Your task to perform on an android device: Search for "bose soundsport free" on target, select the first entry, add it to the cart, then select checkout. Image 0: 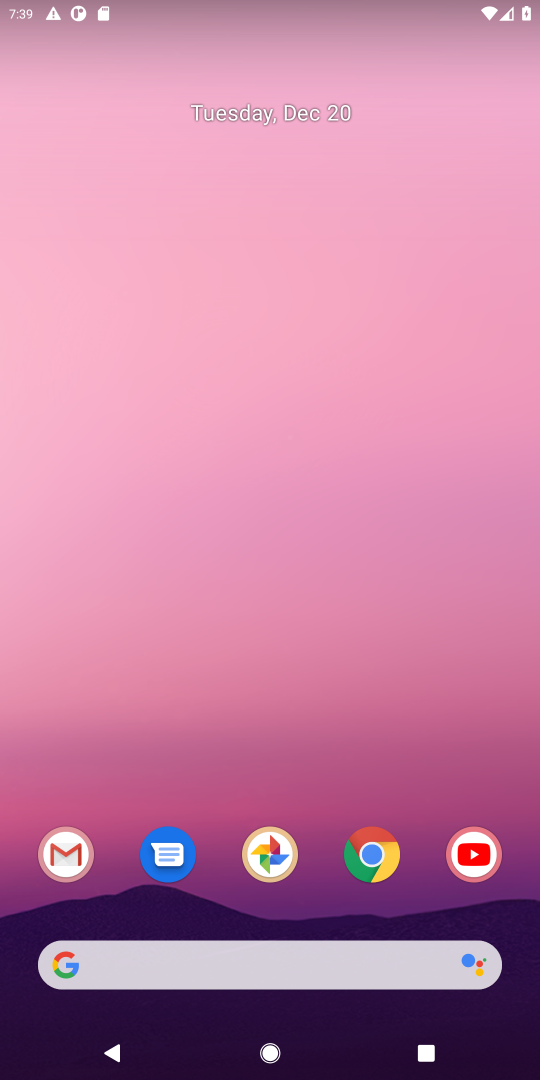
Step 0: click (364, 872)
Your task to perform on an android device: Search for "bose soundsport free" on target, select the first entry, add it to the cart, then select checkout. Image 1: 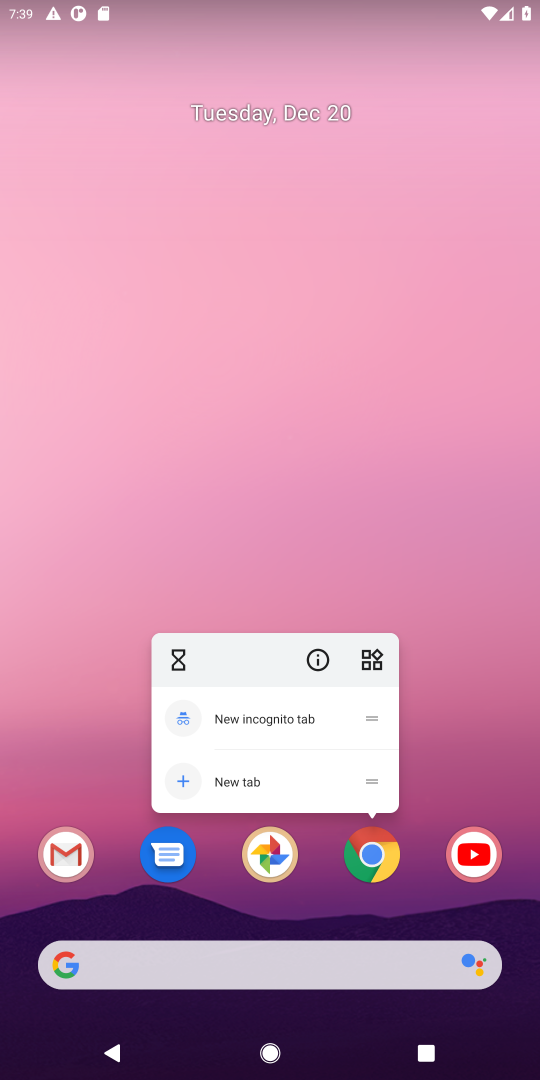
Step 1: click (366, 866)
Your task to perform on an android device: Search for "bose soundsport free" on target, select the first entry, add it to the cart, then select checkout. Image 2: 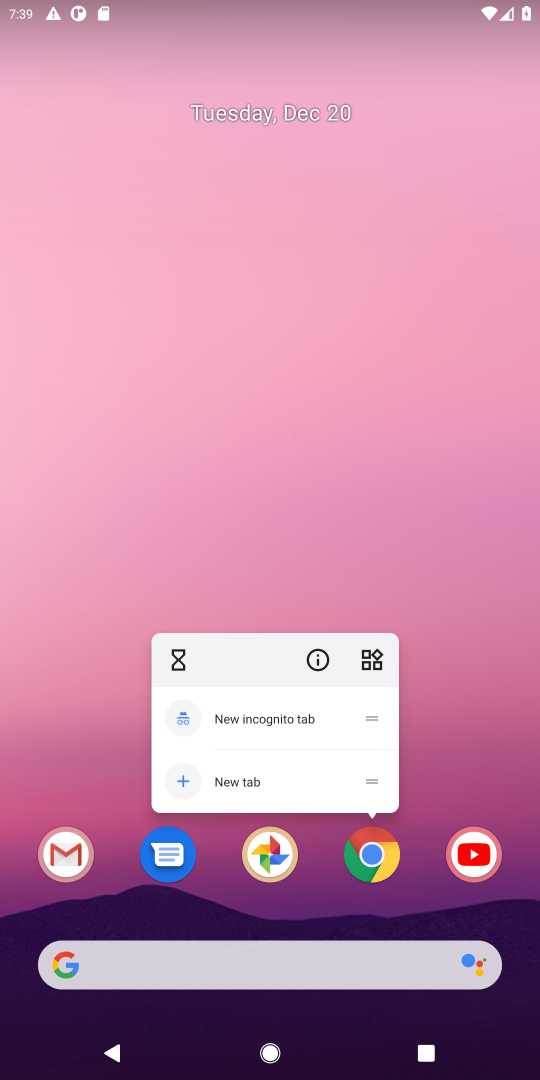
Step 2: click (378, 860)
Your task to perform on an android device: Search for "bose soundsport free" on target, select the first entry, add it to the cart, then select checkout. Image 3: 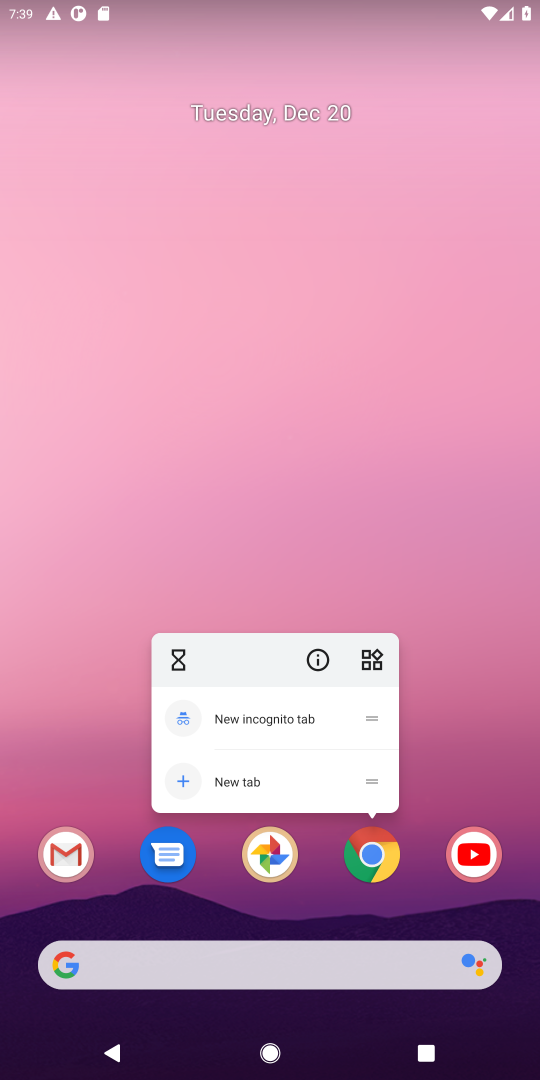
Step 3: click (374, 862)
Your task to perform on an android device: Search for "bose soundsport free" on target, select the first entry, add it to the cart, then select checkout. Image 4: 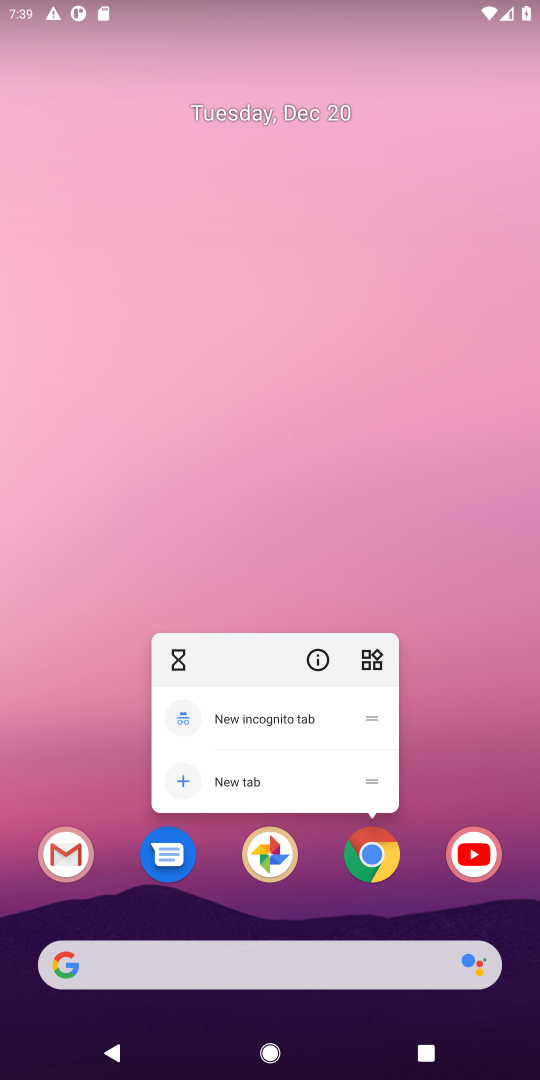
Step 4: click (450, 752)
Your task to perform on an android device: Search for "bose soundsport free" on target, select the first entry, add it to the cart, then select checkout. Image 5: 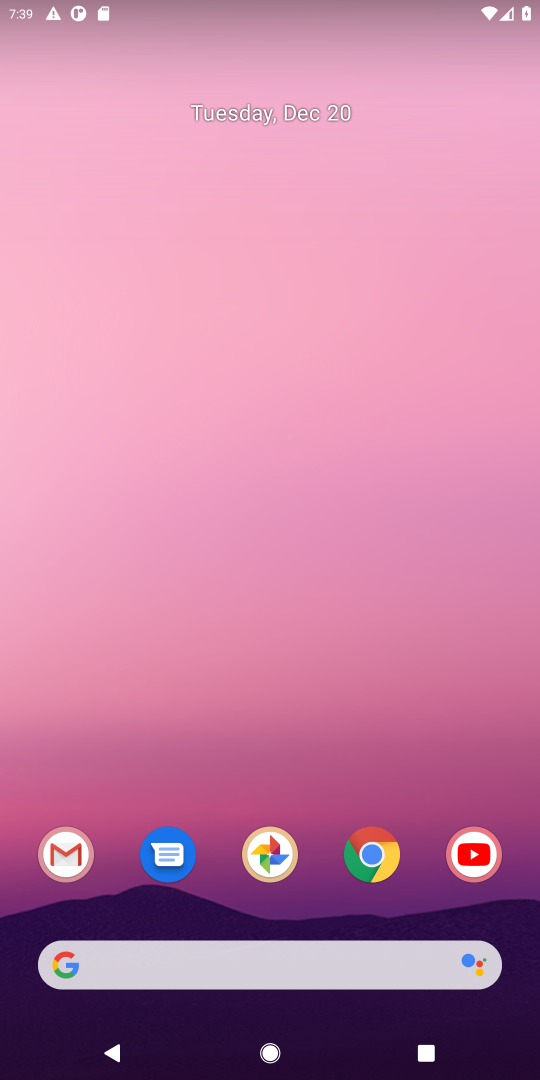
Step 5: click (376, 871)
Your task to perform on an android device: Search for "bose soundsport free" on target, select the first entry, add it to the cart, then select checkout. Image 6: 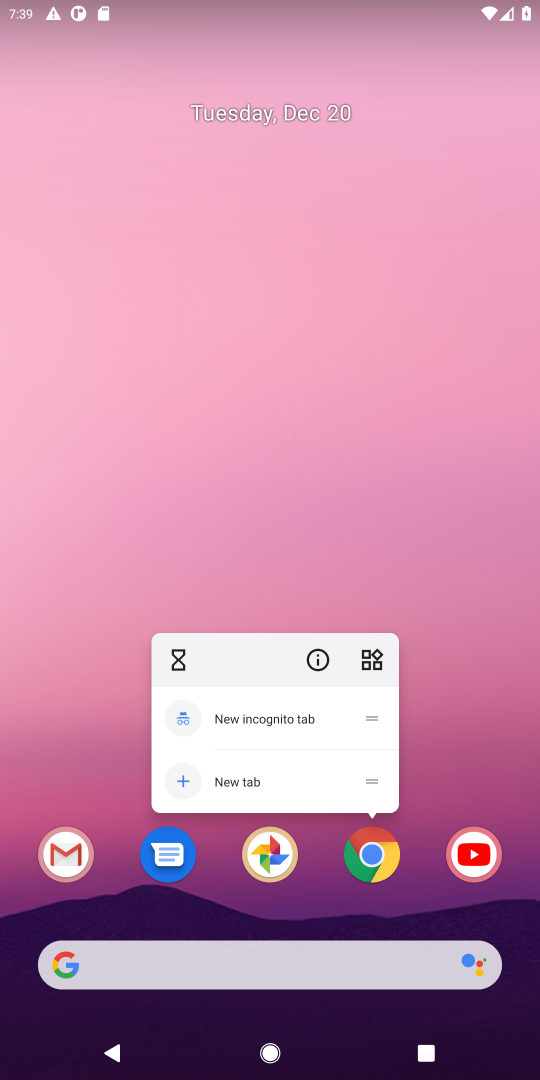
Step 6: click (364, 871)
Your task to perform on an android device: Search for "bose soundsport free" on target, select the first entry, add it to the cart, then select checkout. Image 7: 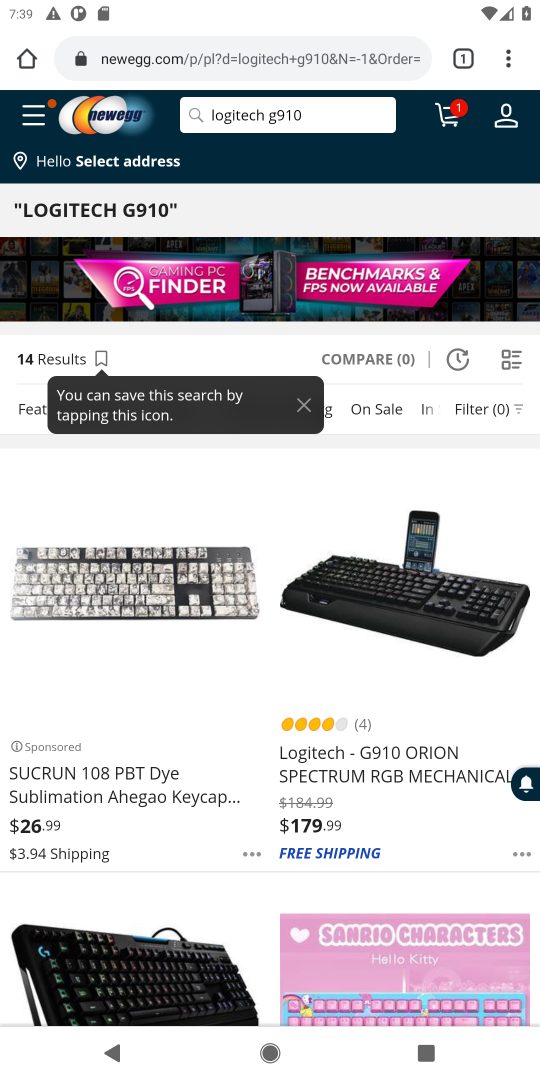
Step 7: click (218, 58)
Your task to perform on an android device: Search for "bose soundsport free" on target, select the first entry, add it to the cart, then select checkout. Image 8: 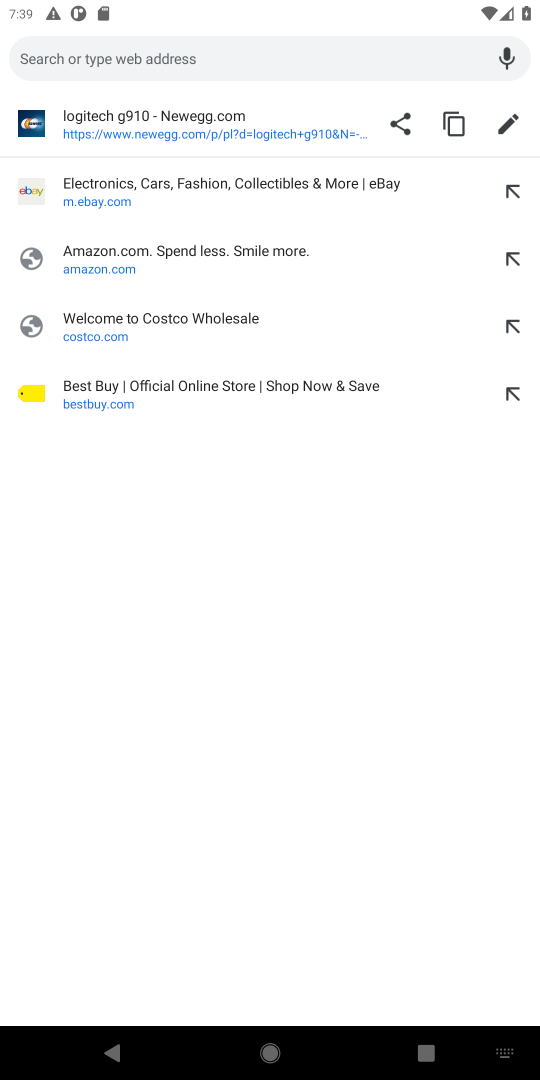
Step 8: type "target.com"
Your task to perform on an android device: Search for "bose soundsport free" on target, select the first entry, add it to the cart, then select checkout. Image 9: 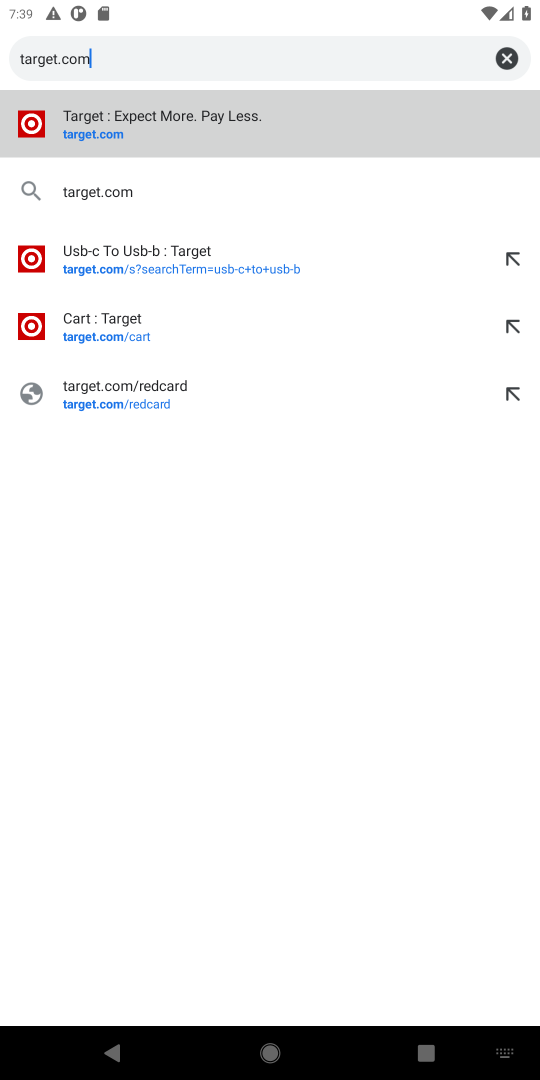
Step 9: click (88, 143)
Your task to perform on an android device: Search for "bose soundsport free" on target, select the first entry, add it to the cart, then select checkout. Image 10: 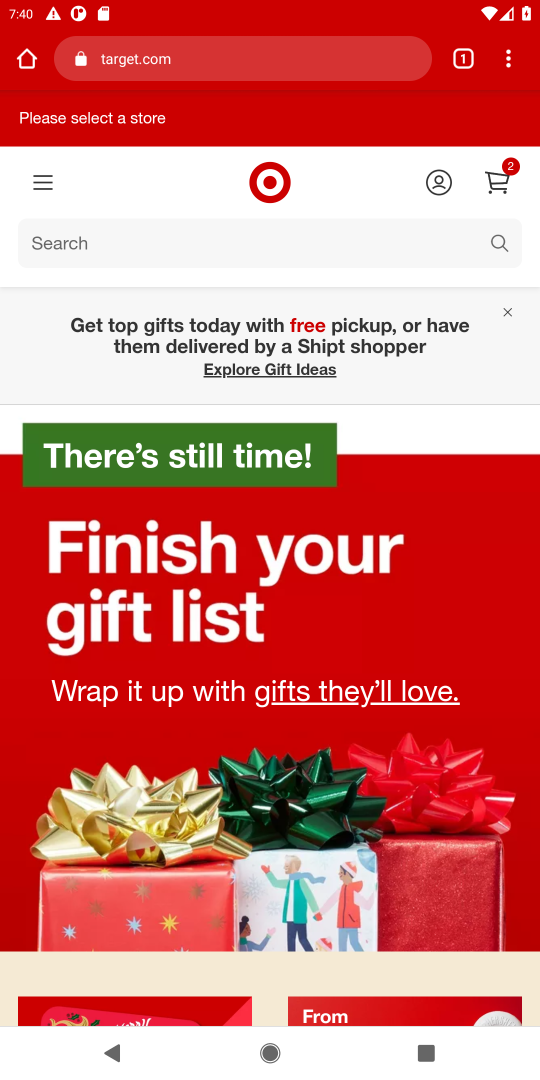
Step 10: click (81, 234)
Your task to perform on an android device: Search for "bose soundsport free" on target, select the first entry, add it to the cart, then select checkout. Image 11: 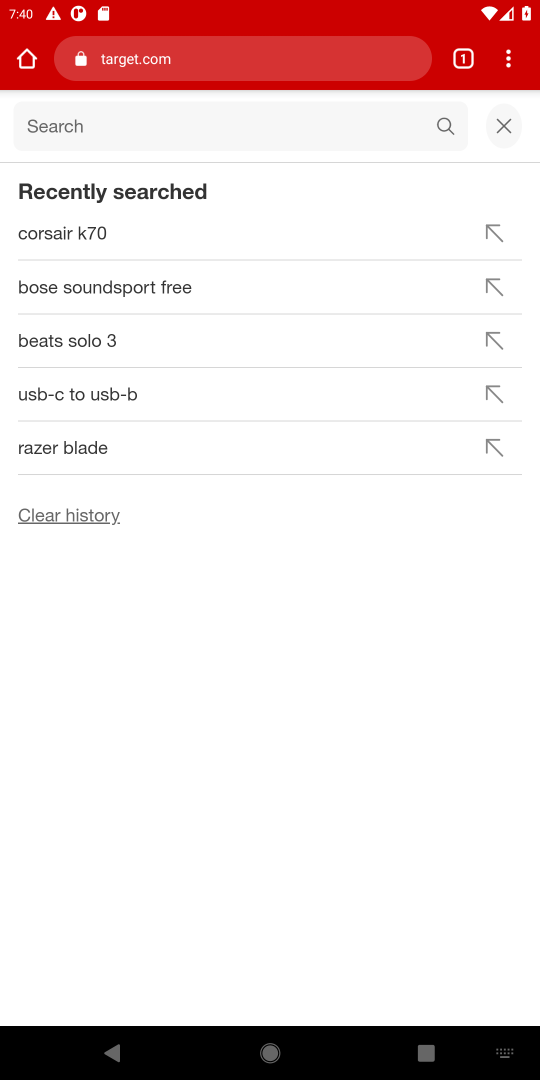
Step 11: type "bose soundsport free"
Your task to perform on an android device: Search for "bose soundsport free" on target, select the first entry, add it to the cart, then select checkout. Image 12: 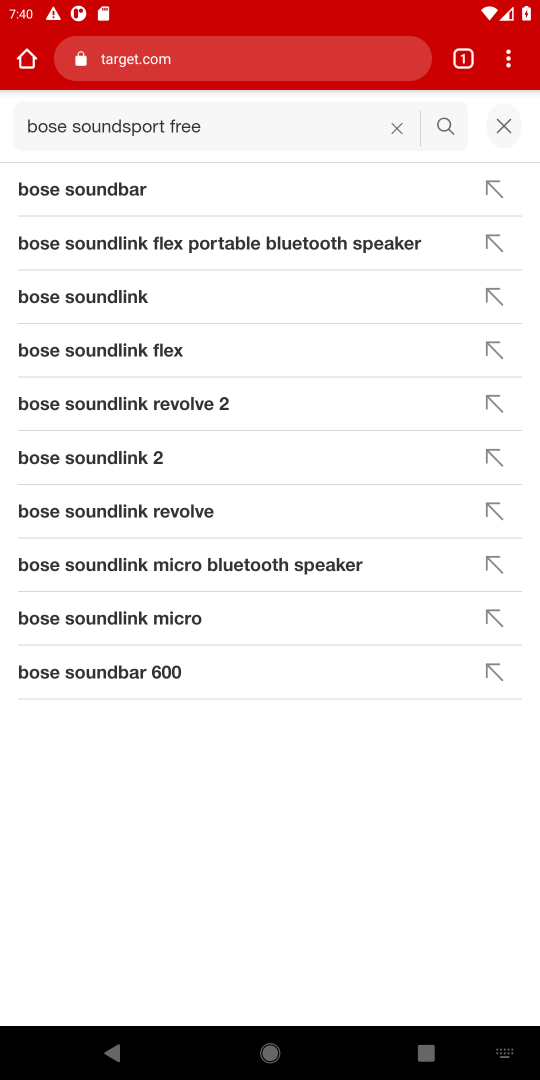
Step 12: click (448, 126)
Your task to perform on an android device: Search for "bose soundsport free" on target, select the first entry, add it to the cart, then select checkout. Image 13: 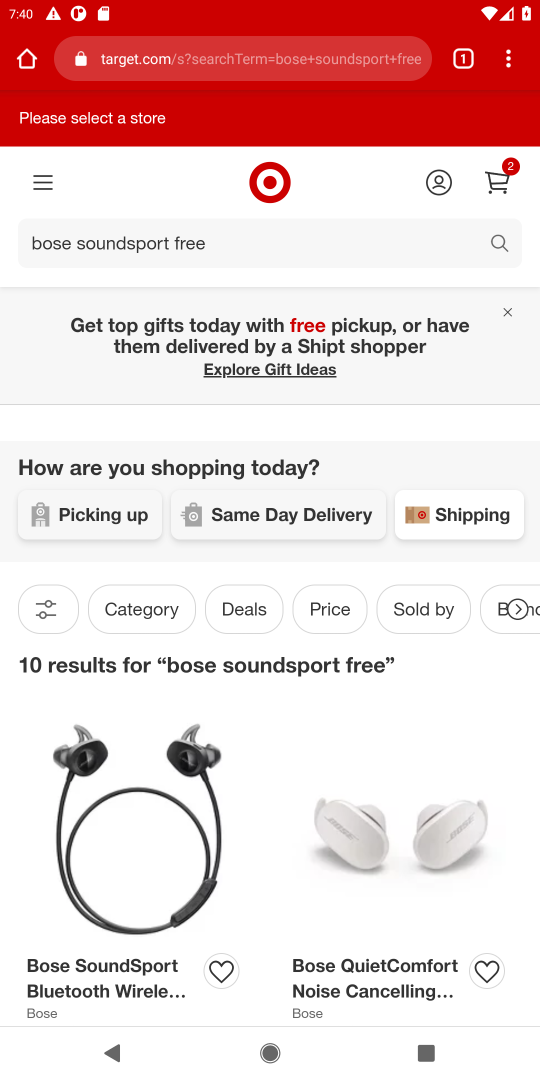
Step 13: drag from (174, 697) to (177, 451)
Your task to perform on an android device: Search for "bose soundsport free" on target, select the first entry, add it to the cart, then select checkout. Image 14: 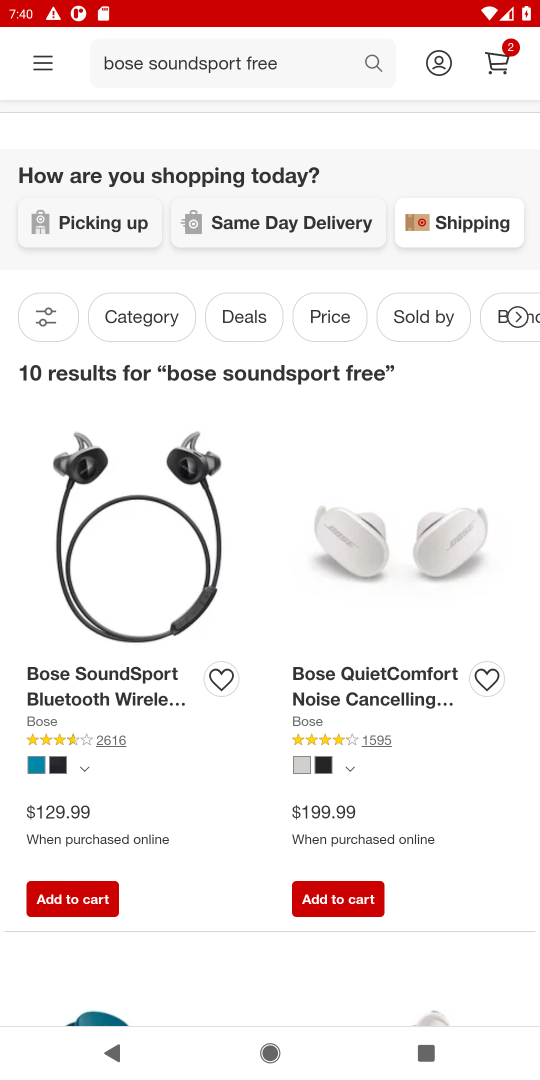
Step 14: click (80, 691)
Your task to perform on an android device: Search for "bose soundsport free" on target, select the first entry, add it to the cart, then select checkout. Image 15: 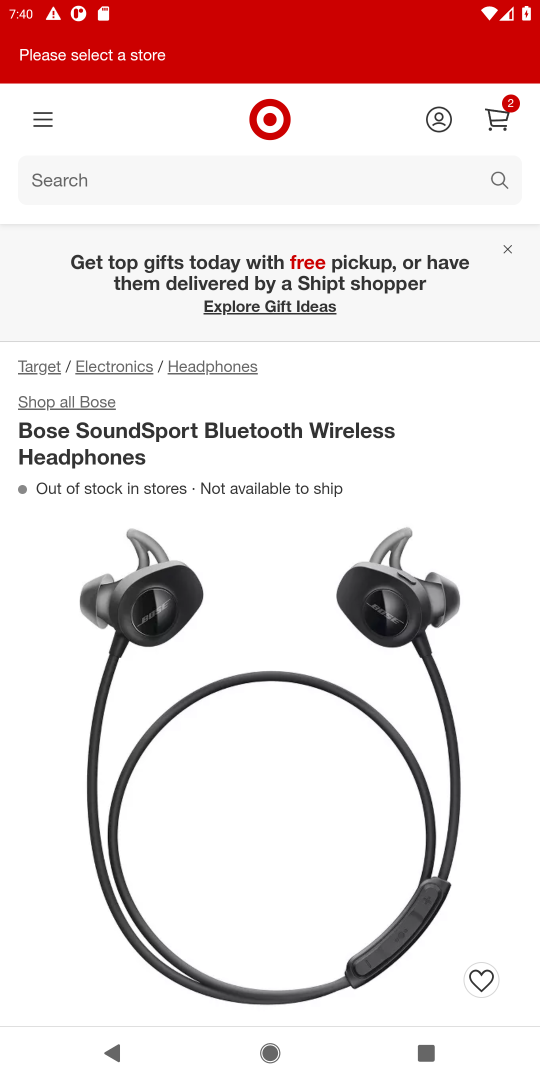
Step 15: task complete